Your task to perform on an android device: When is my next meeting? Image 0: 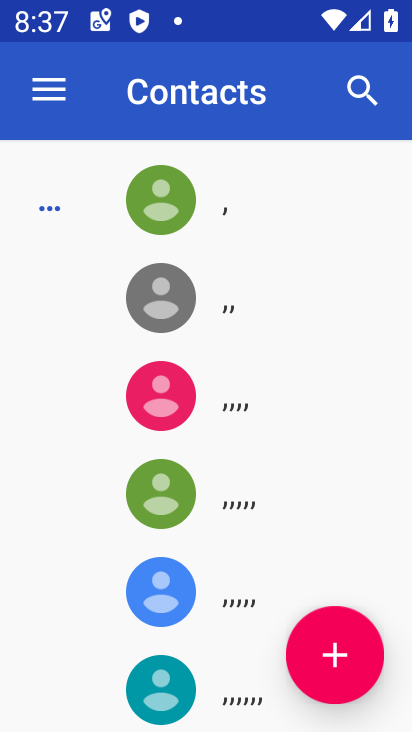
Step 0: press home button
Your task to perform on an android device: When is my next meeting? Image 1: 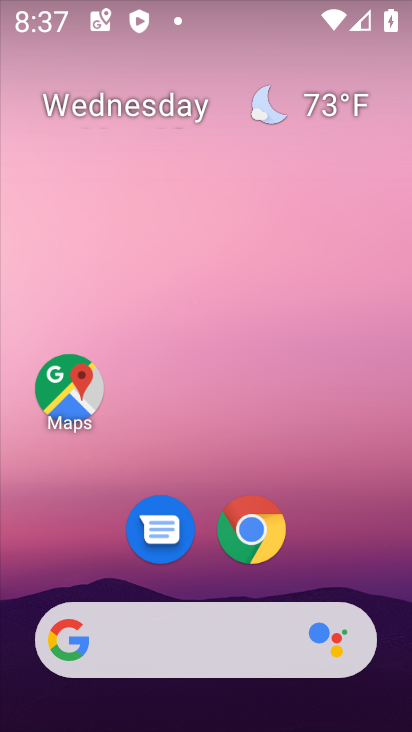
Step 1: drag from (365, 550) to (350, 216)
Your task to perform on an android device: When is my next meeting? Image 2: 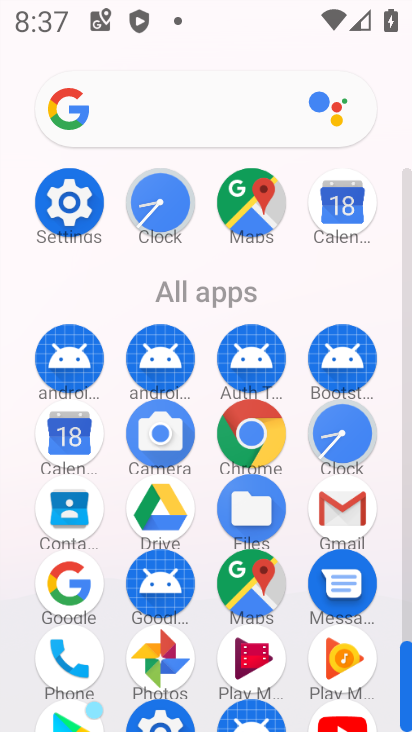
Step 2: click (347, 206)
Your task to perform on an android device: When is my next meeting? Image 3: 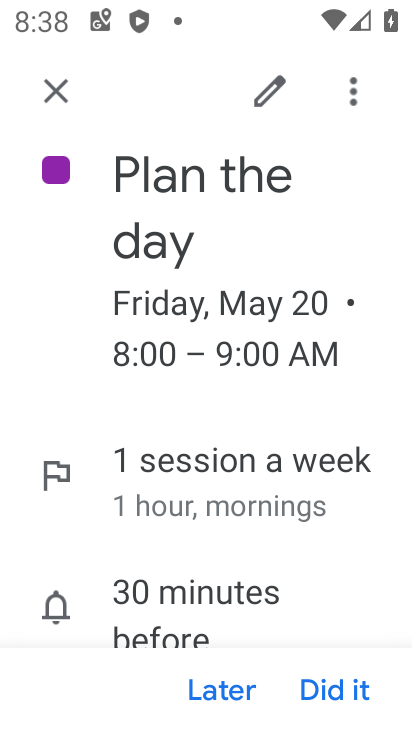
Step 3: click (56, 93)
Your task to perform on an android device: When is my next meeting? Image 4: 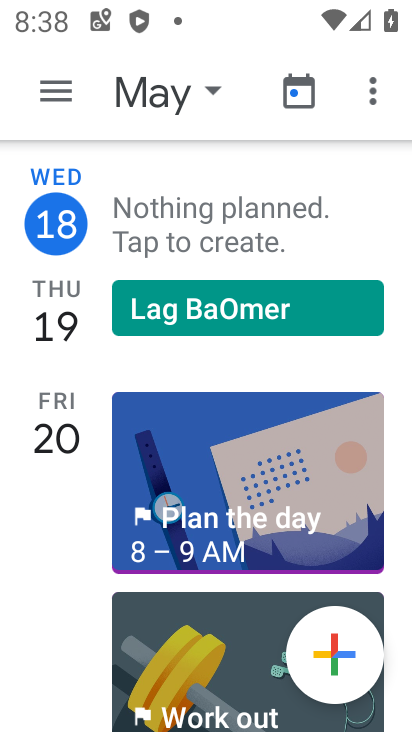
Step 4: click (230, 472)
Your task to perform on an android device: When is my next meeting? Image 5: 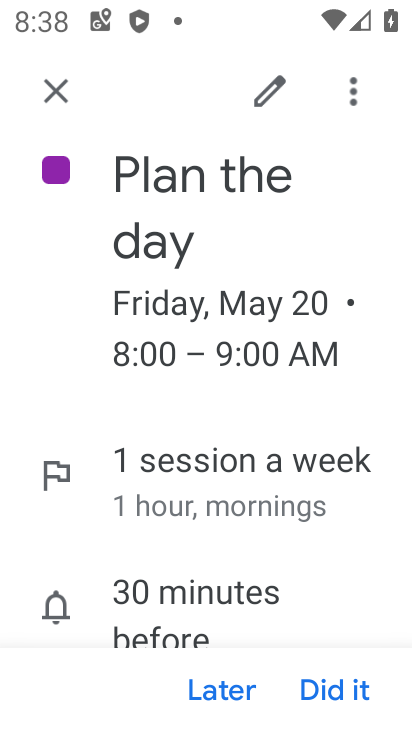
Step 5: task complete